Your task to perform on an android device: Do I have any events tomorrow? Image 0: 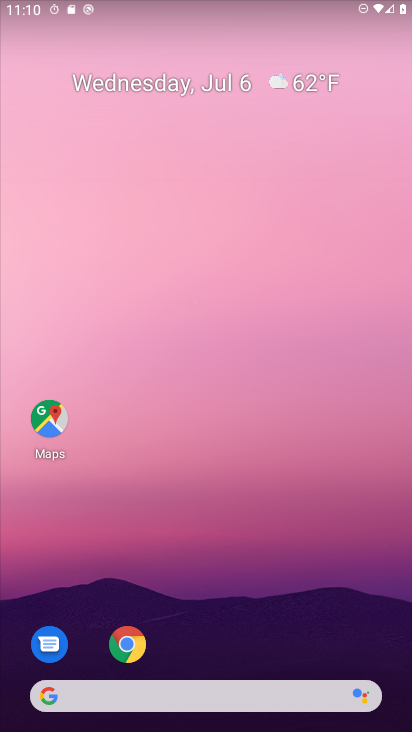
Step 0: press home button
Your task to perform on an android device: Do I have any events tomorrow? Image 1: 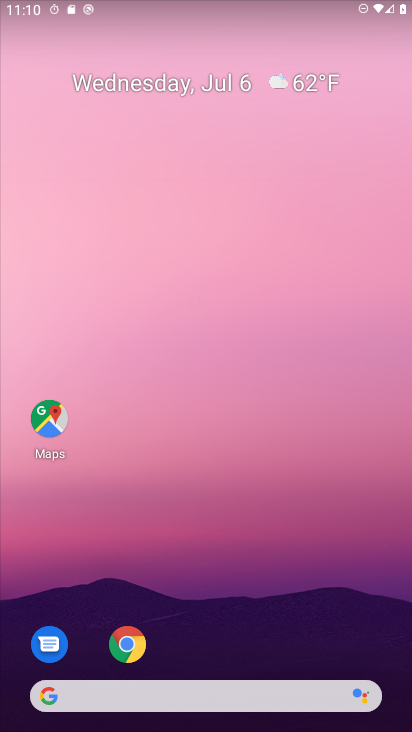
Step 1: drag from (199, 644) to (152, 155)
Your task to perform on an android device: Do I have any events tomorrow? Image 2: 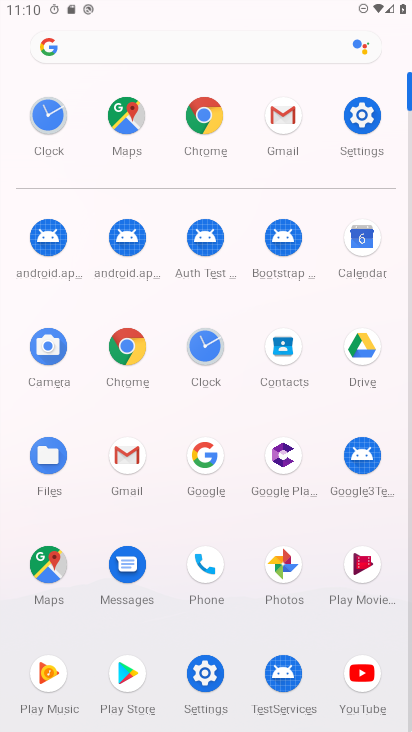
Step 2: click (360, 244)
Your task to perform on an android device: Do I have any events tomorrow? Image 3: 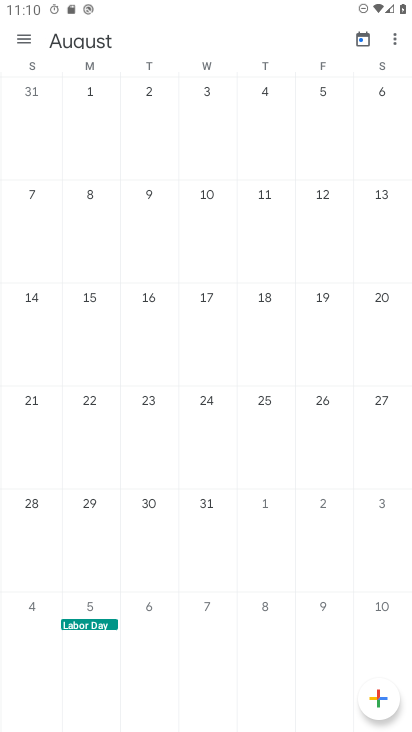
Step 3: click (20, 42)
Your task to perform on an android device: Do I have any events tomorrow? Image 4: 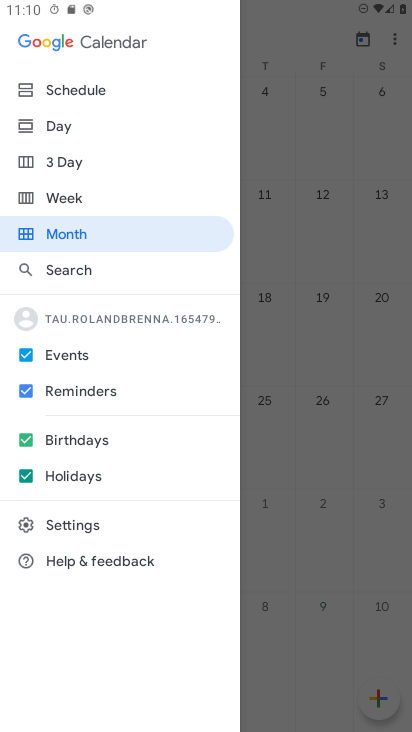
Step 4: click (67, 346)
Your task to perform on an android device: Do I have any events tomorrow? Image 5: 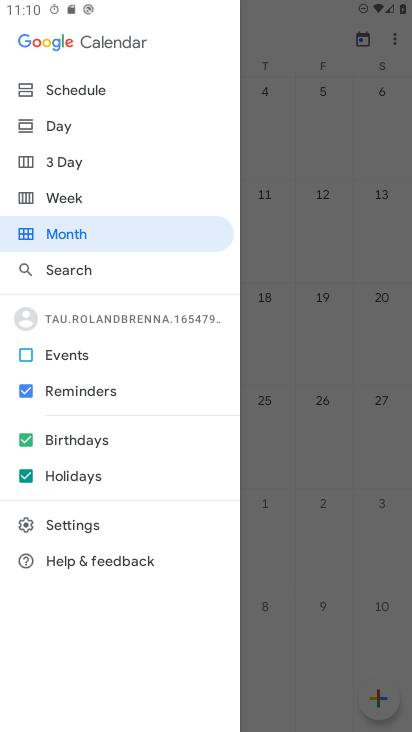
Step 5: click (66, 356)
Your task to perform on an android device: Do I have any events tomorrow? Image 6: 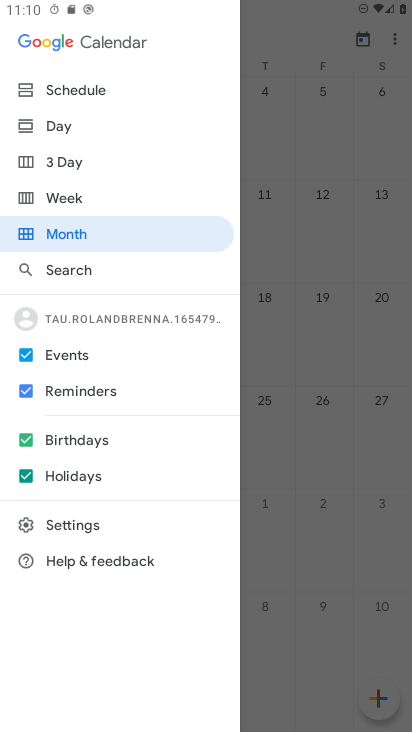
Step 6: click (289, 501)
Your task to perform on an android device: Do I have any events tomorrow? Image 7: 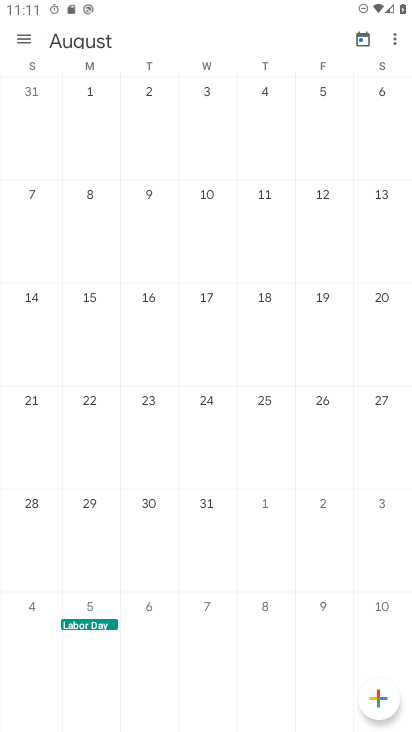
Step 7: task complete